Your task to perform on an android device: open app "Speedtest by Ookla" (install if not already installed) Image 0: 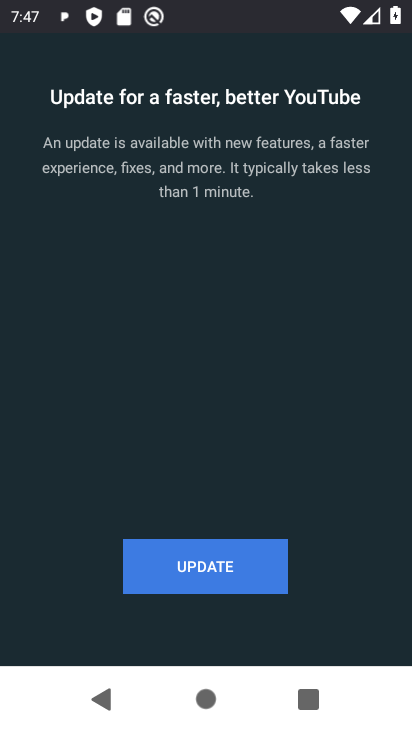
Step 0: press home button
Your task to perform on an android device: open app "Speedtest by Ookla" (install if not already installed) Image 1: 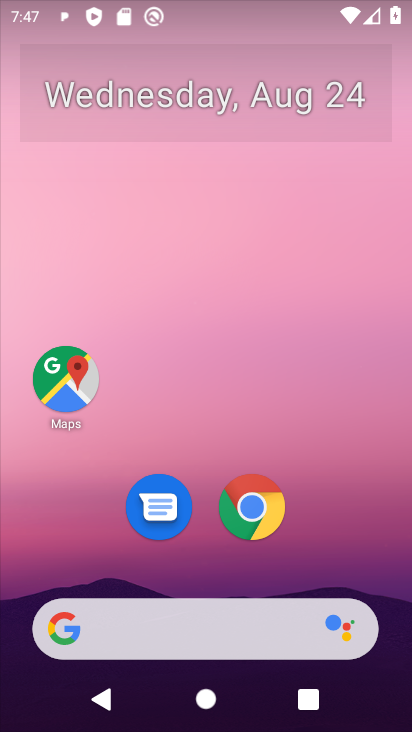
Step 1: drag from (365, 559) to (383, 132)
Your task to perform on an android device: open app "Speedtest by Ookla" (install if not already installed) Image 2: 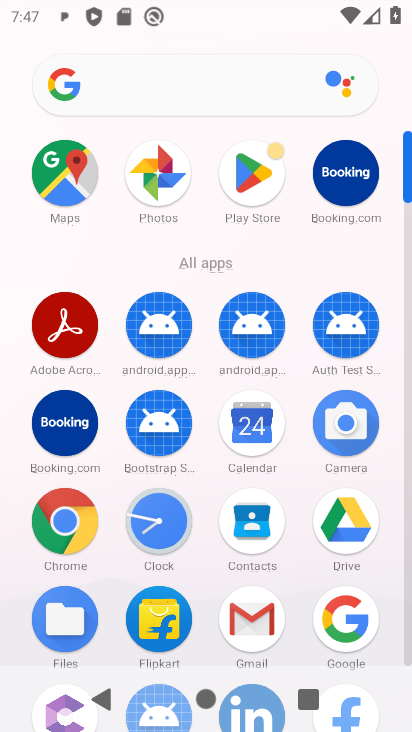
Step 2: click (258, 174)
Your task to perform on an android device: open app "Speedtest by Ookla" (install if not already installed) Image 3: 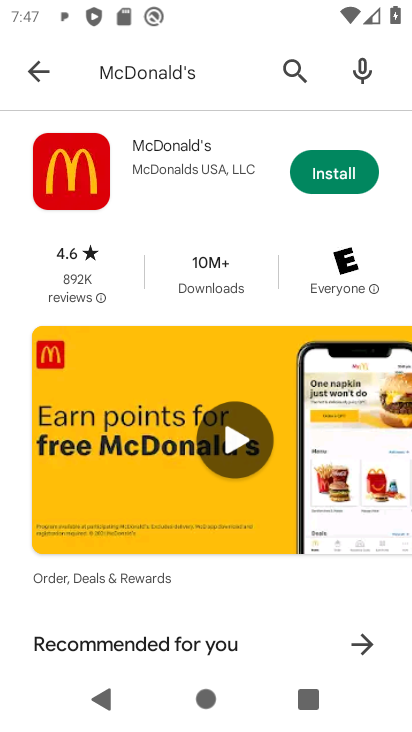
Step 3: press back button
Your task to perform on an android device: open app "Speedtest by Ookla" (install if not already installed) Image 4: 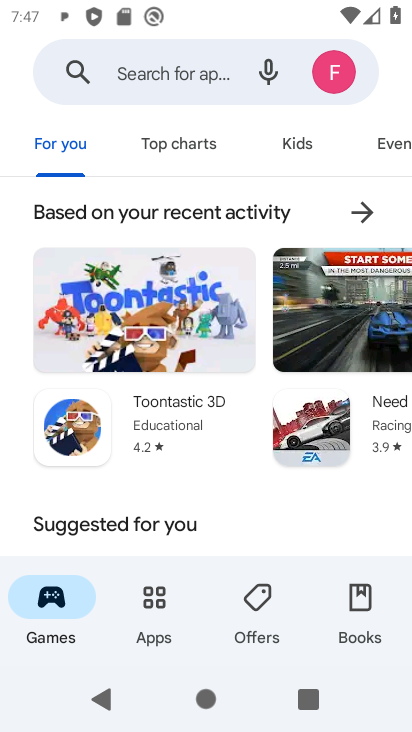
Step 4: click (178, 71)
Your task to perform on an android device: open app "Speedtest by Ookla" (install if not already installed) Image 5: 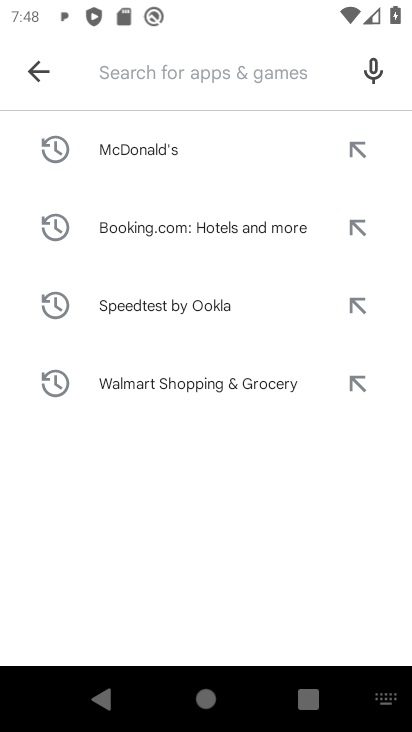
Step 5: type "Speedtest by Ookla"
Your task to perform on an android device: open app "Speedtest by Ookla" (install if not already installed) Image 6: 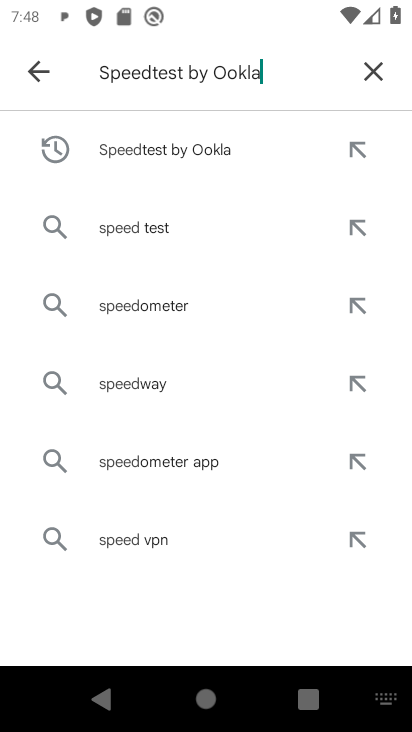
Step 6: press enter
Your task to perform on an android device: open app "Speedtest by Ookla" (install if not already installed) Image 7: 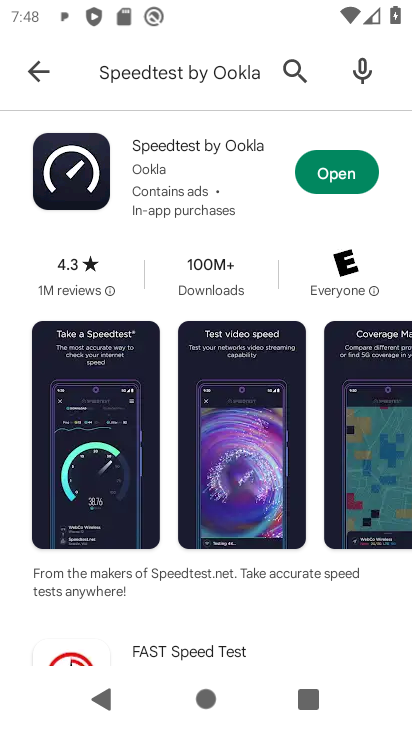
Step 7: click (351, 178)
Your task to perform on an android device: open app "Speedtest by Ookla" (install if not already installed) Image 8: 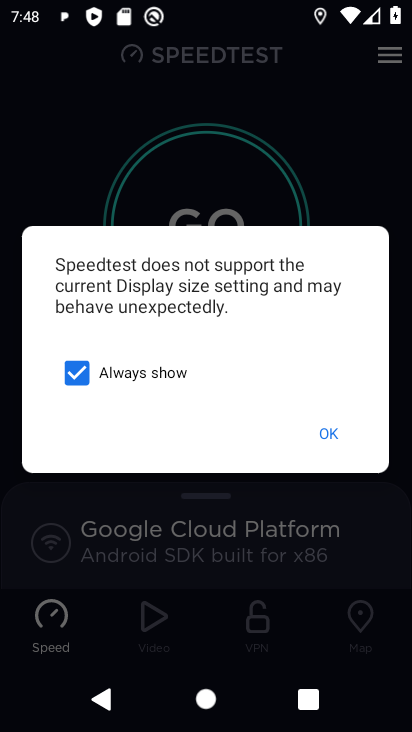
Step 8: click (340, 434)
Your task to perform on an android device: open app "Speedtest by Ookla" (install if not already installed) Image 9: 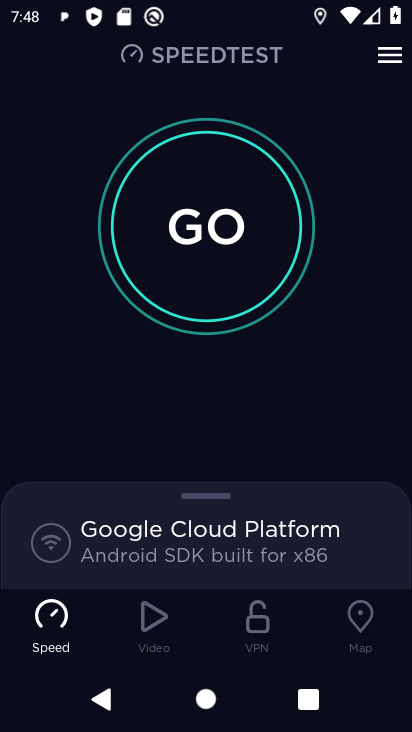
Step 9: task complete